Your task to perform on an android device: Set the phone to "Do not disturb". Image 0: 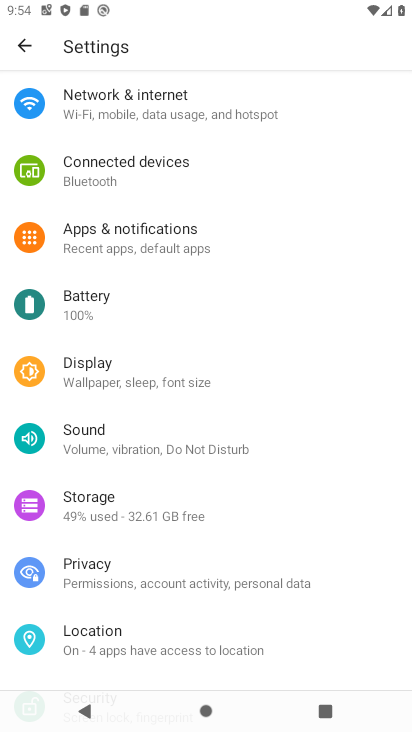
Step 0: press back button
Your task to perform on an android device: Set the phone to "Do not disturb". Image 1: 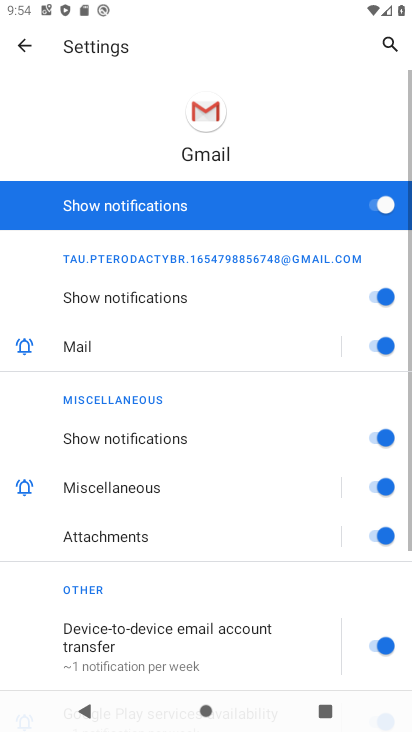
Step 1: drag from (117, 9) to (193, 570)
Your task to perform on an android device: Set the phone to "Do not disturb". Image 2: 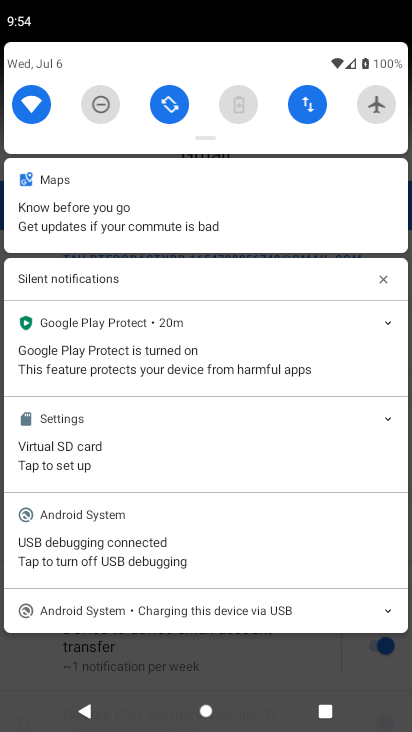
Step 2: click (104, 100)
Your task to perform on an android device: Set the phone to "Do not disturb". Image 3: 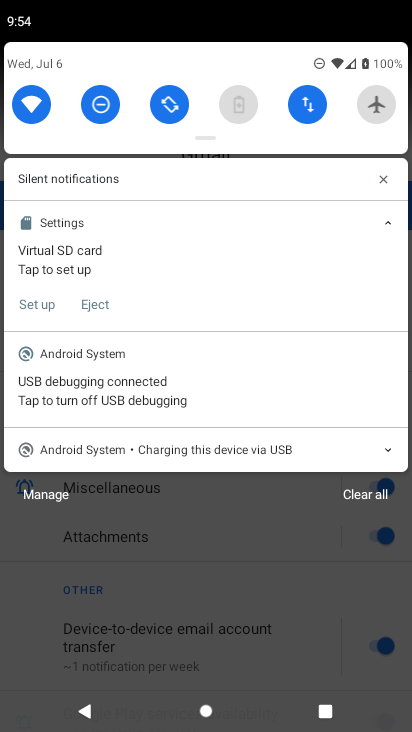
Step 3: task complete